Your task to perform on an android device: delete browsing data in the chrome app Image 0: 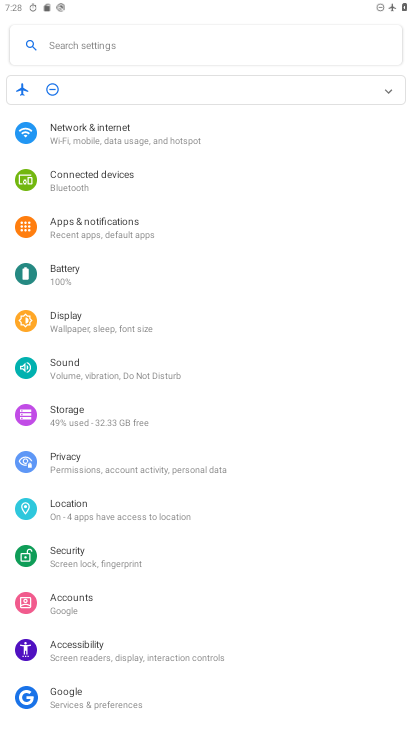
Step 0: press home button
Your task to perform on an android device: delete browsing data in the chrome app Image 1: 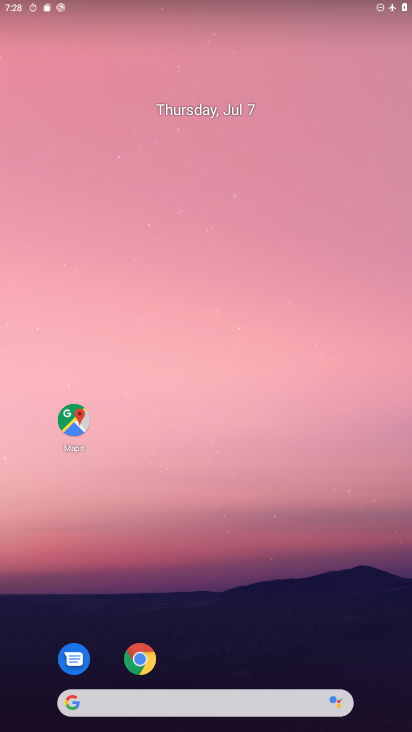
Step 1: drag from (381, 674) to (100, 26)
Your task to perform on an android device: delete browsing data in the chrome app Image 2: 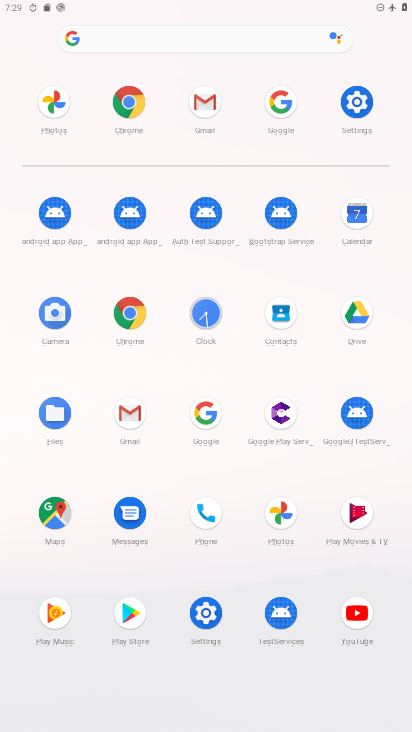
Step 2: click (122, 313)
Your task to perform on an android device: delete browsing data in the chrome app Image 3: 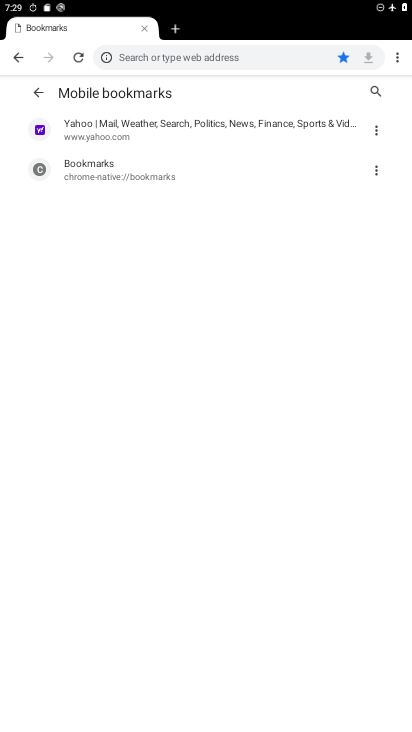
Step 3: click (402, 54)
Your task to perform on an android device: delete browsing data in the chrome app Image 4: 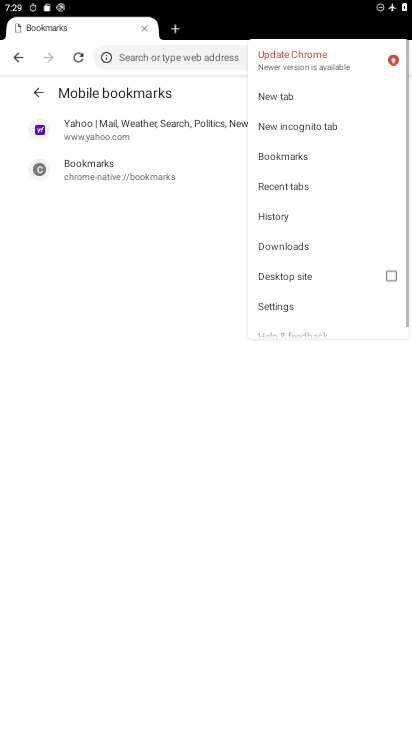
Step 4: click (305, 218)
Your task to perform on an android device: delete browsing data in the chrome app Image 5: 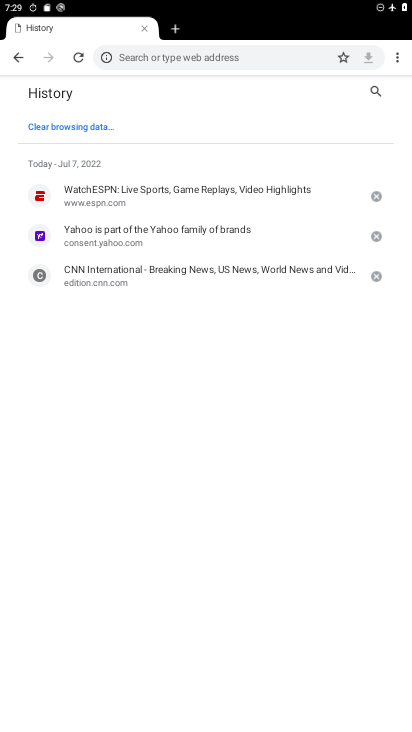
Step 5: click (79, 135)
Your task to perform on an android device: delete browsing data in the chrome app Image 6: 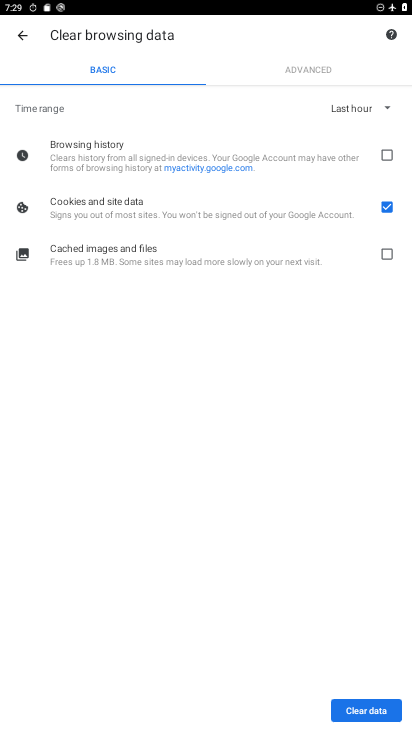
Step 6: click (373, 154)
Your task to perform on an android device: delete browsing data in the chrome app Image 7: 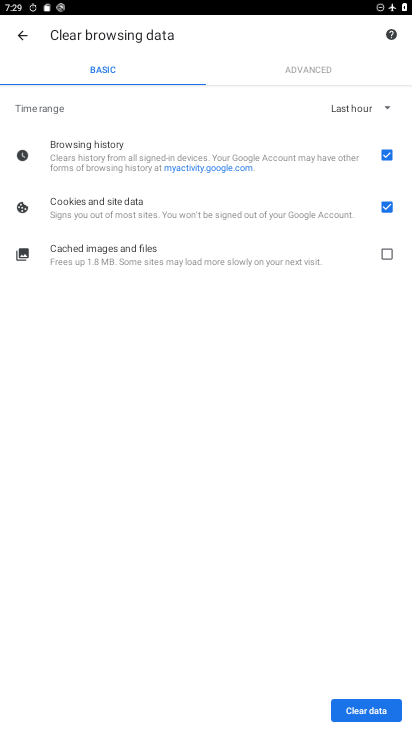
Step 7: click (369, 716)
Your task to perform on an android device: delete browsing data in the chrome app Image 8: 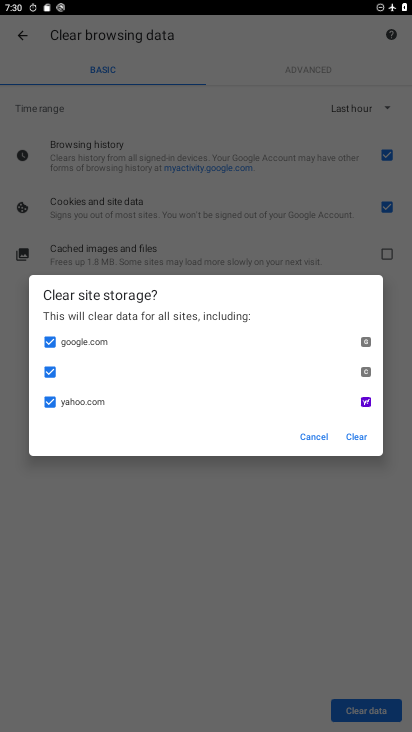
Step 8: click (365, 444)
Your task to perform on an android device: delete browsing data in the chrome app Image 9: 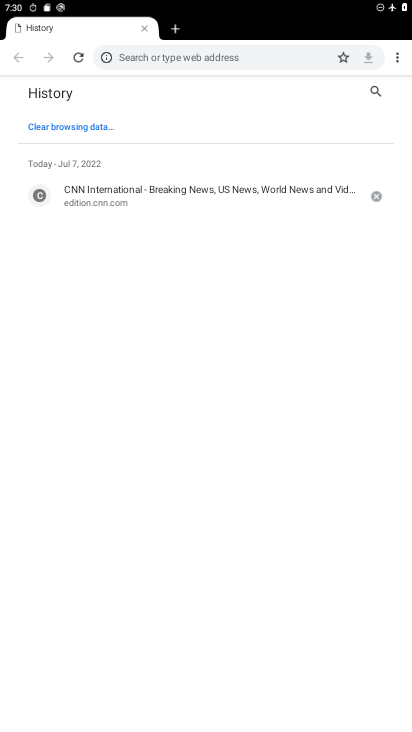
Step 9: task complete